Your task to perform on an android device: delete a single message in the gmail app Image 0: 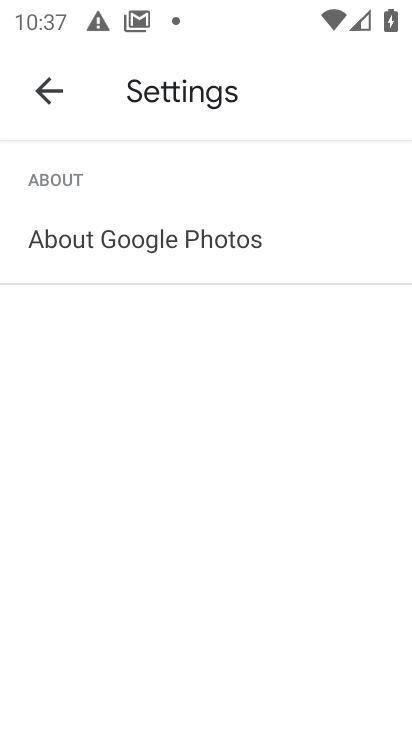
Step 0: press home button
Your task to perform on an android device: delete a single message in the gmail app Image 1: 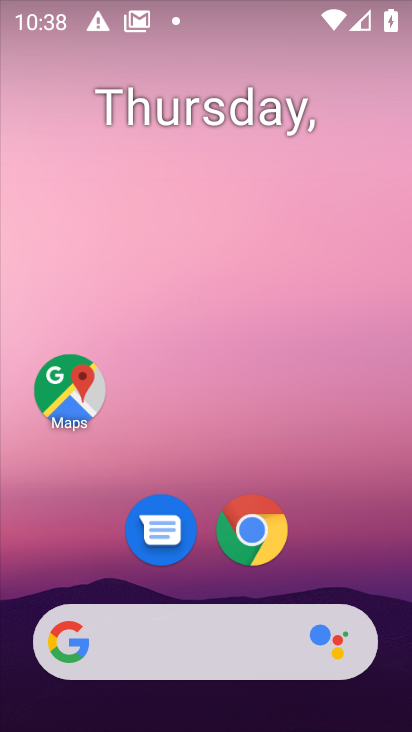
Step 1: drag from (336, 546) to (317, 23)
Your task to perform on an android device: delete a single message in the gmail app Image 2: 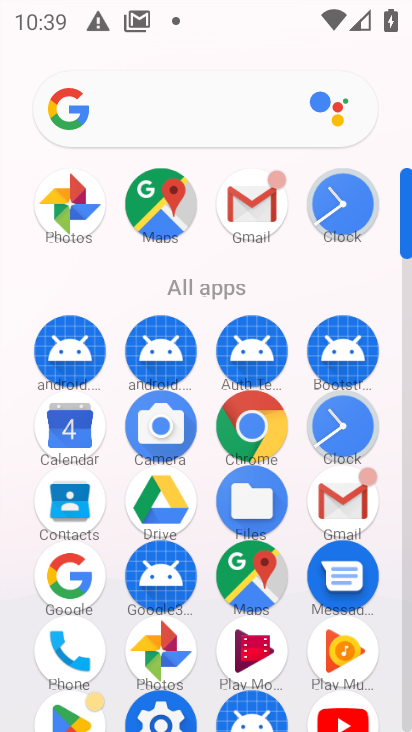
Step 2: click (340, 493)
Your task to perform on an android device: delete a single message in the gmail app Image 3: 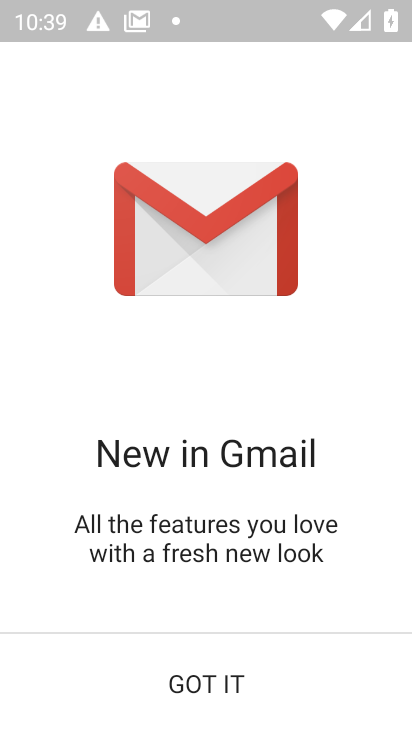
Step 3: click (282, 691)
Your task to perform on an android device: delete a single message in the gmail app Image 4: 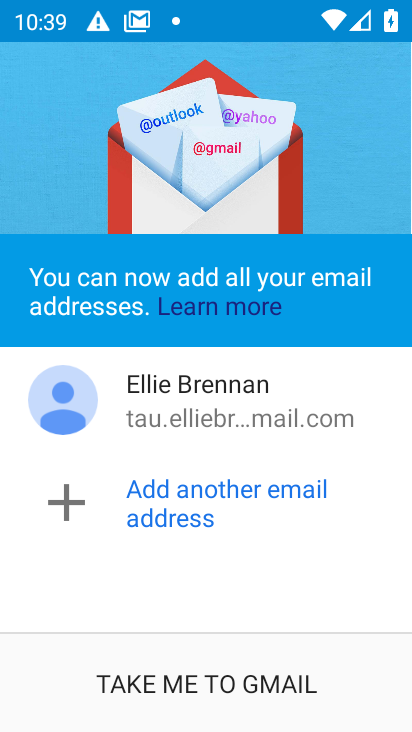
Step 4: click (230, 654)
Your task to perform on an android device: delete a single message in the gmail app Image 5: 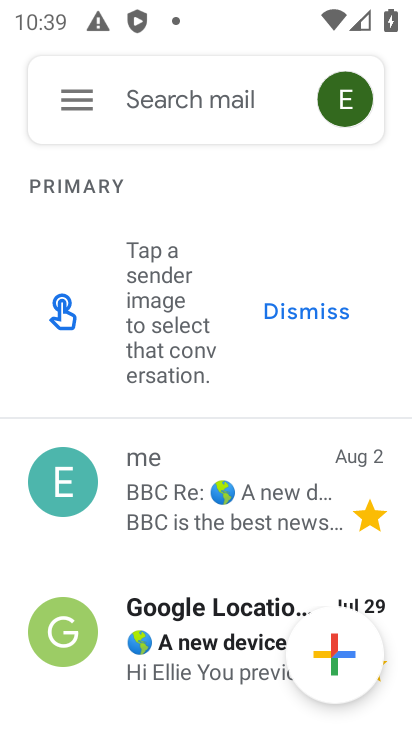
Step 5: click (52, 469)
Your task to perform on an android device: delete a single message in the gmail app Image 6: 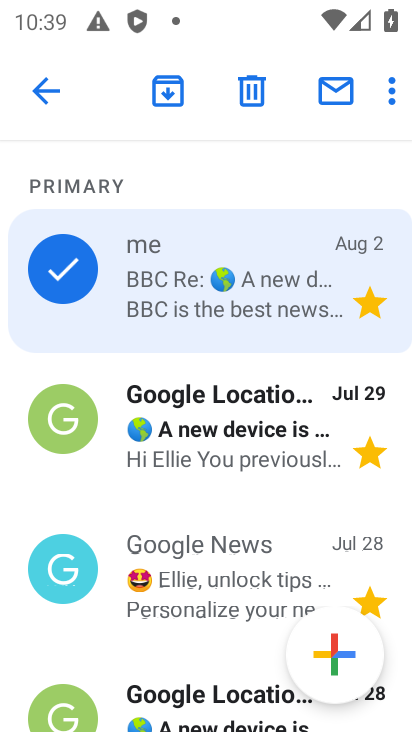
Step 6: click (263, 102)
Your task to perform on an android device: delete a single message in the gmail app Image 7: 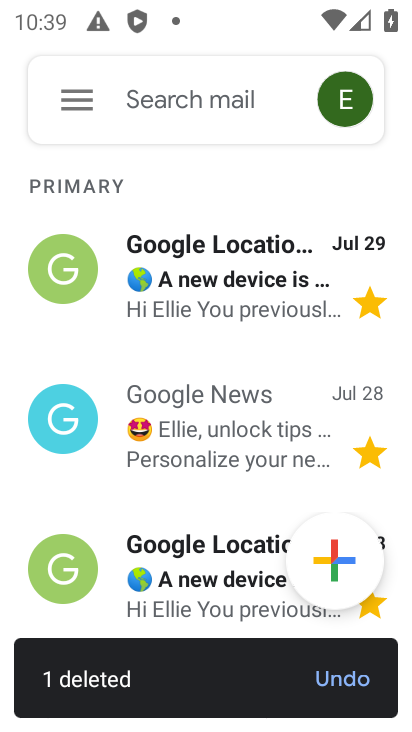
Step 7: task complete